Your task to perform on an android device: check google app version Image 0: 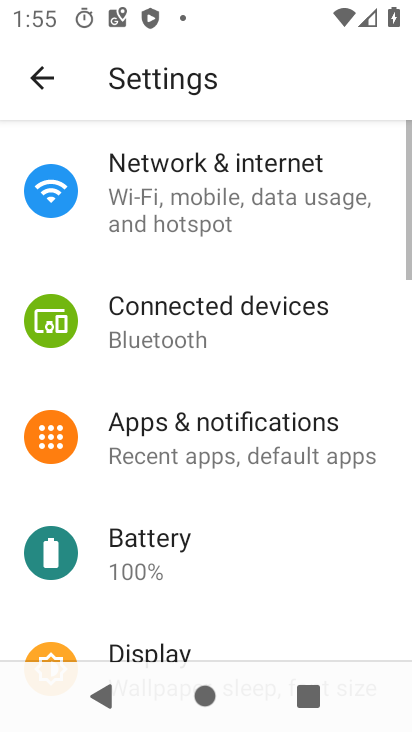
Step 0: press back button
Your task to perform on an android device: check google app version Image 1: 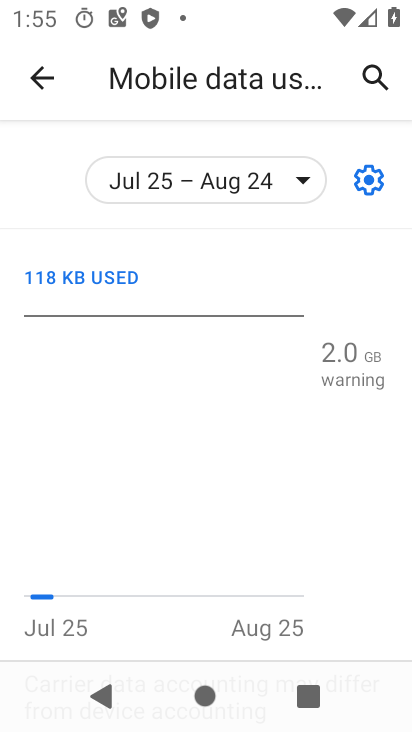
Step 1: press back button
Your task to perform on an android device: check google app version Image 2: 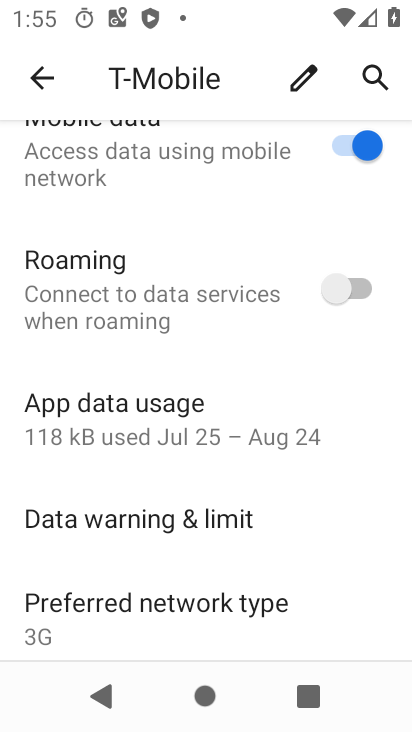
Step 2: press back button
Your task to perform on an android device: check google app version Image 3: 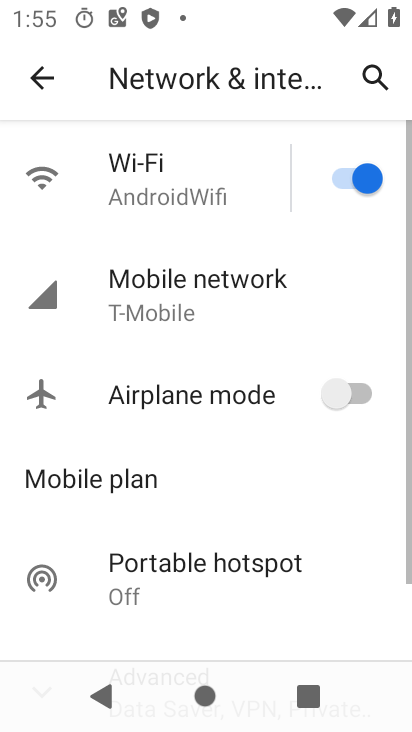
Step 3: press back button
Your task to perform on an android device: check google app version Image 4: 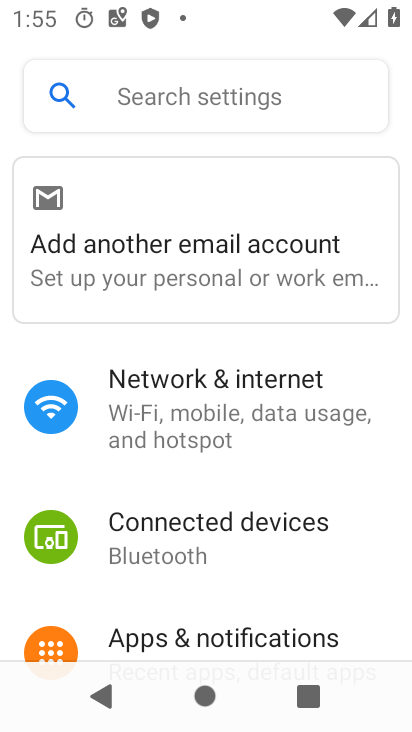
Step 4: press back button
Your task to perform on an android device: check google app version Image 5: 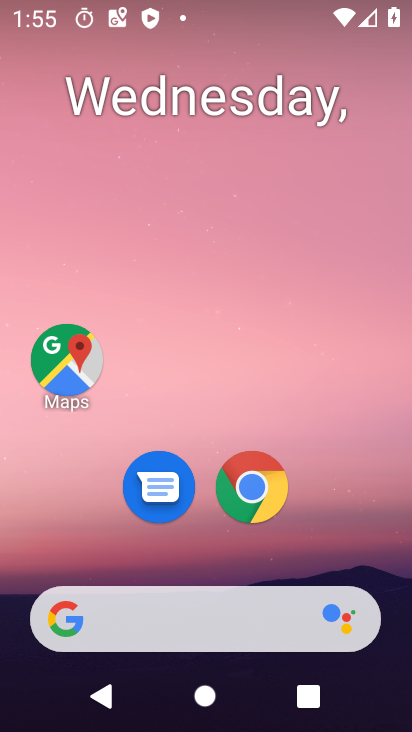
Step 5: drag from (205, 560) to (290, 0)
Your task to perform on an android device: check google app version Image 6: 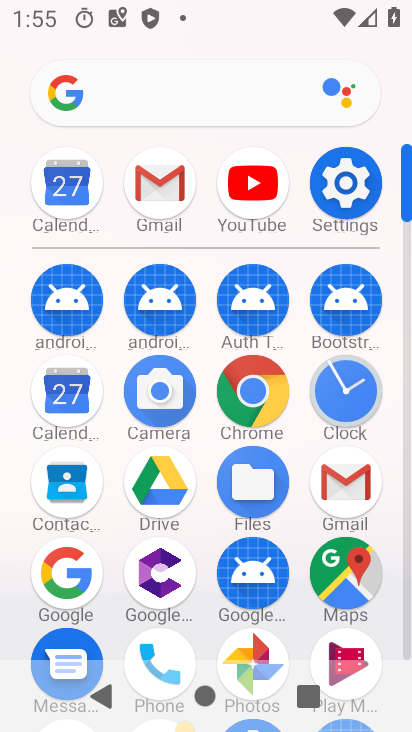
Step 6: click (78, 576)
Your task to perform on an android device: check google app version Image 7: 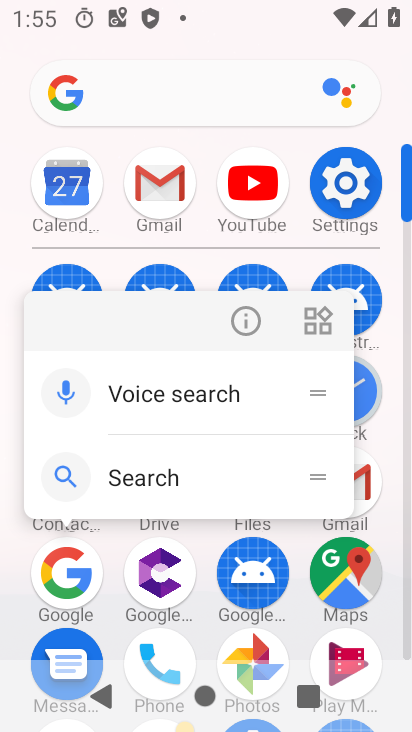
Step 7: click (242, 331)
Your task to perform on an android device: check google app version Image 8: 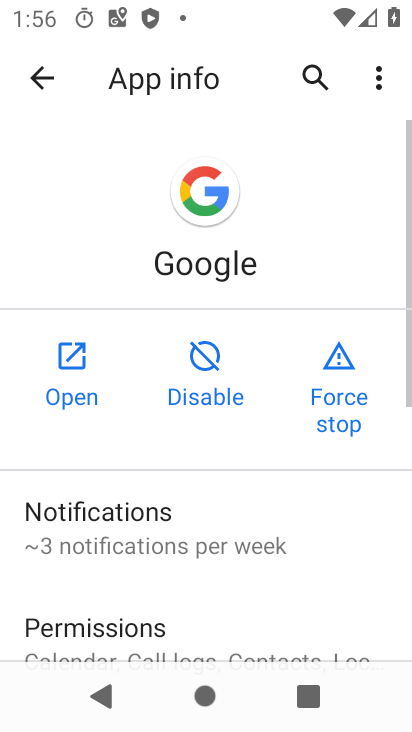
Step 8: drag from (170, 619) to (256, 17)
Your task to perform on an android device: check google app version Image 9: 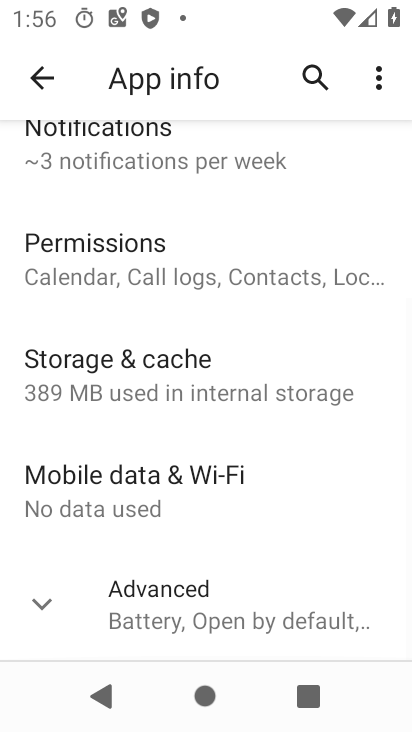
Step 9: click (178, 607)
Your task to perform on an android device: check google app version Image 10: 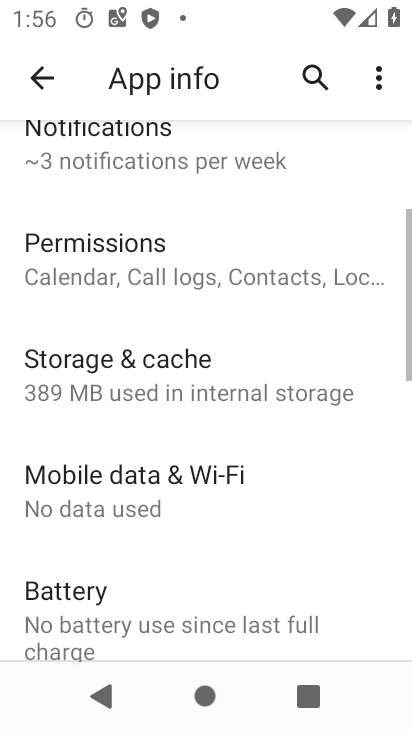
Step 10: task complete